Your task to perform on an android device: change the clock display to show seconds Image 0: 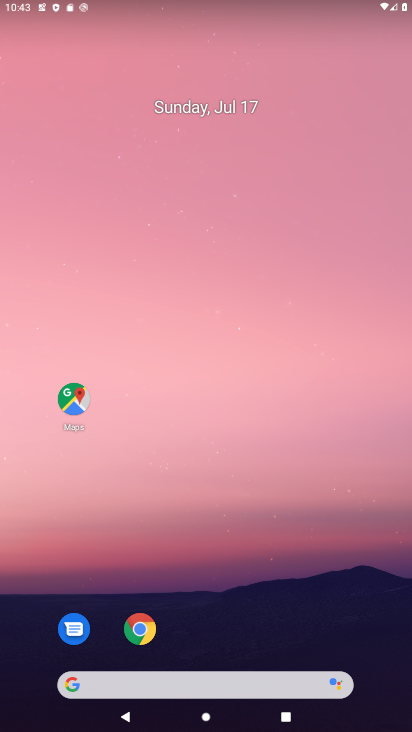
Step 0: drag from (282, 611) to (282, 18)
Your task to perform on an android device: change the clock display to show seconds Image 1: 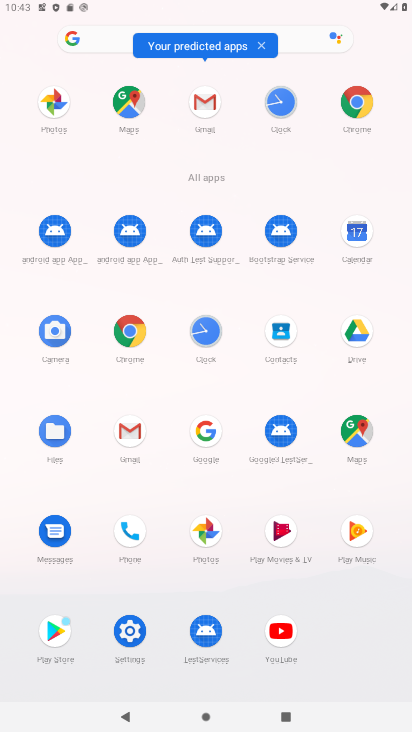
Step 1: click (284, 118)
Your task to perform on an android device: change the clock display to show seconds Image 2: 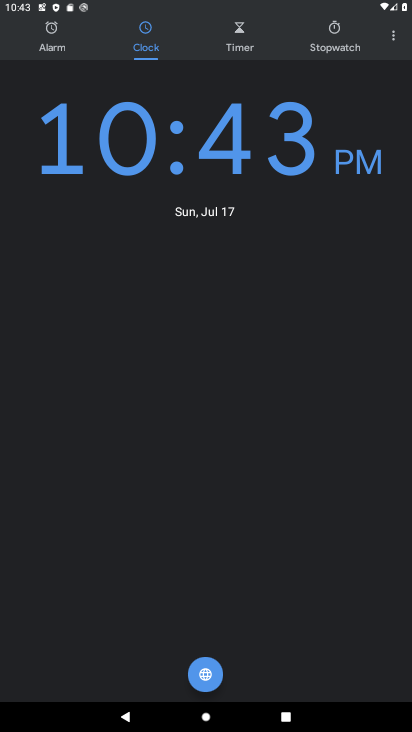
Step 2: click (390, 33)
Your task to perform on an android device: change the clock display to show seconds Image 3: 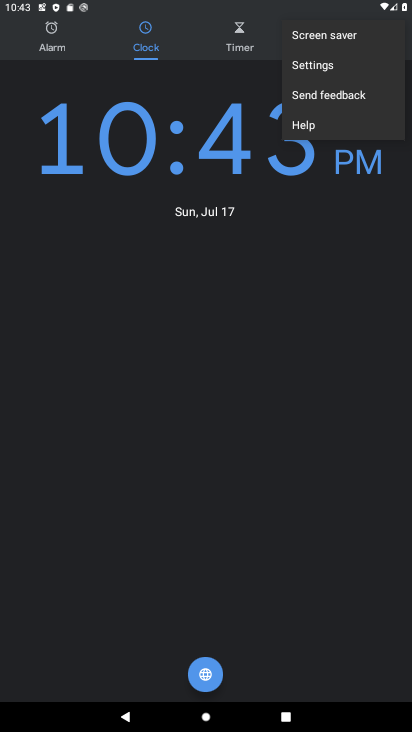
Step 3: click (334, 67)
Your task to perform on an android device: change the clock display to show seconds Image 4: 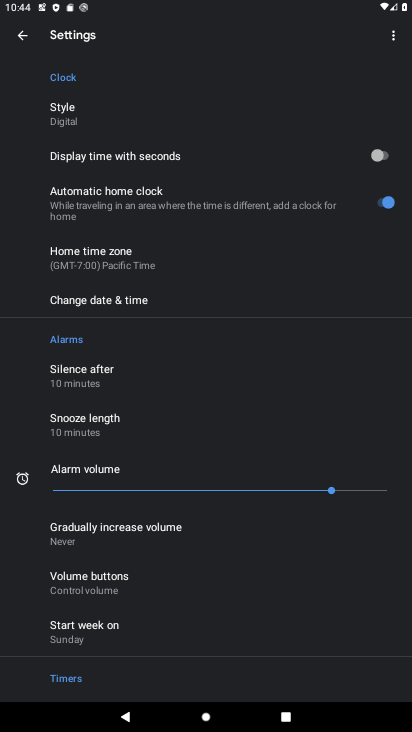
Step 4: click (378, 159)
Your task to perform on an android device: change the clock display to show seconds Image 5: 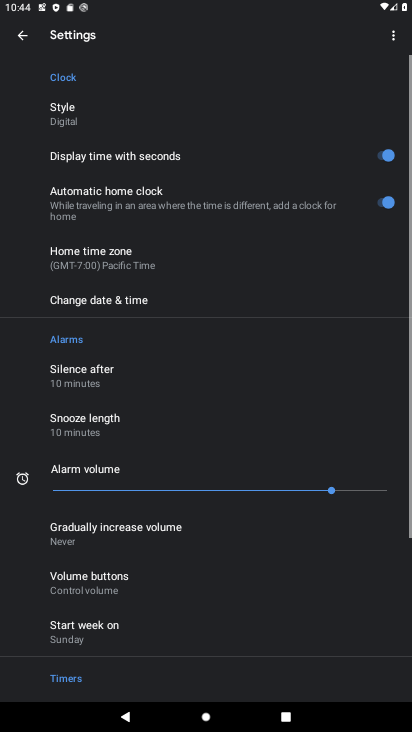
Step 5: task complete